Your task to perform on an android device: Go to accessibility settings Image 0: 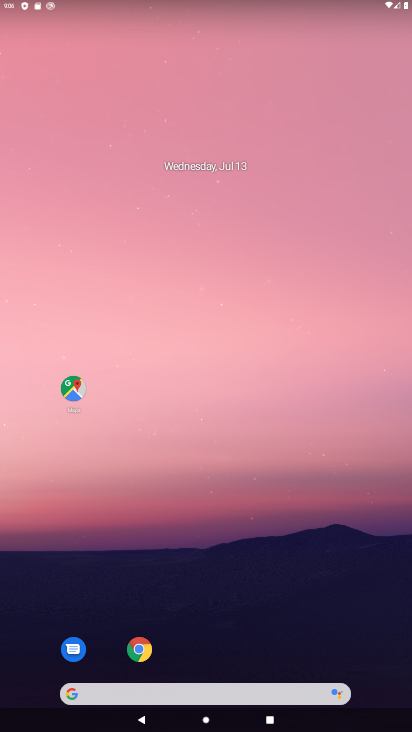
Step 0: drag from (198, 680) to (338, 45)
Your task to perform on an android device: Go to accessibility settings Image 1: 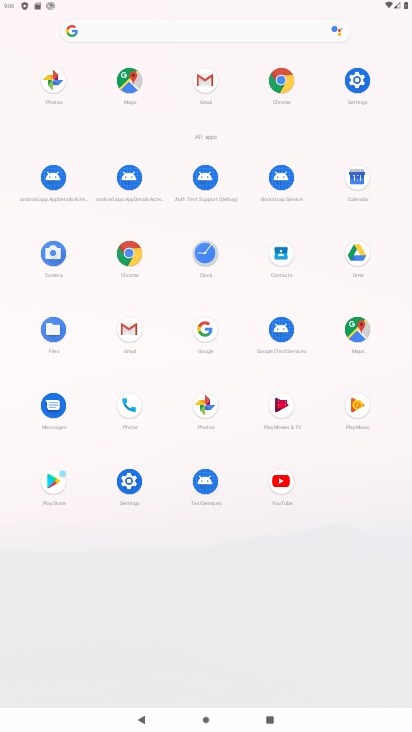
Step 1: click (130, 487)
Your task to perform on an android device: Go to accessibility settings Image 2: 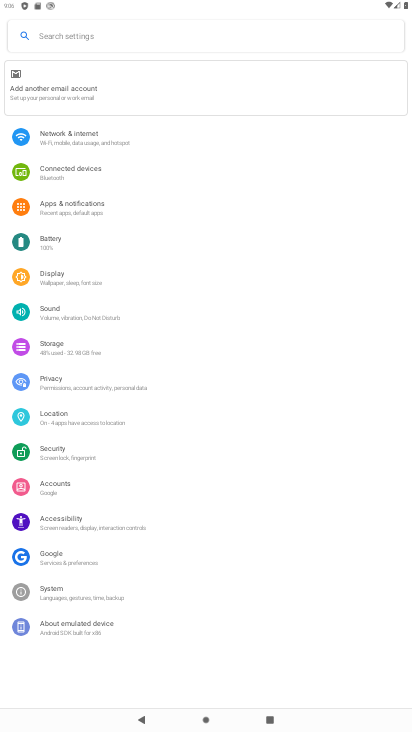
Step 2: click (77, 527)
Your task to perform on an android device: Go to accessibility settings Image 3: 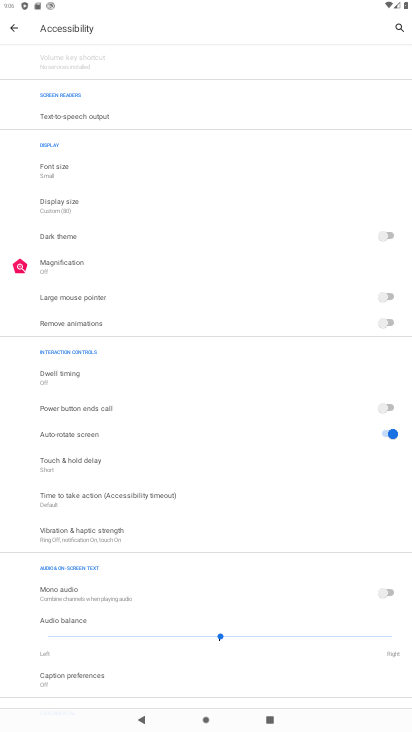
Step 3: task complete